Your task to perform on an android device: Check the weather Image 0: 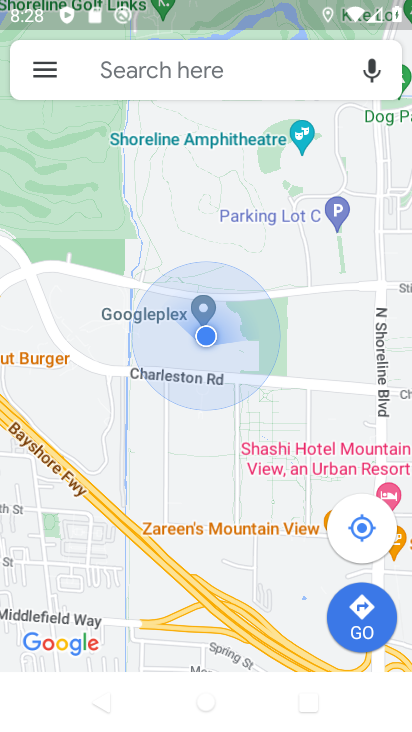
Step 0: press home button
Your task to perform on an android device: Check the weather Image 1: 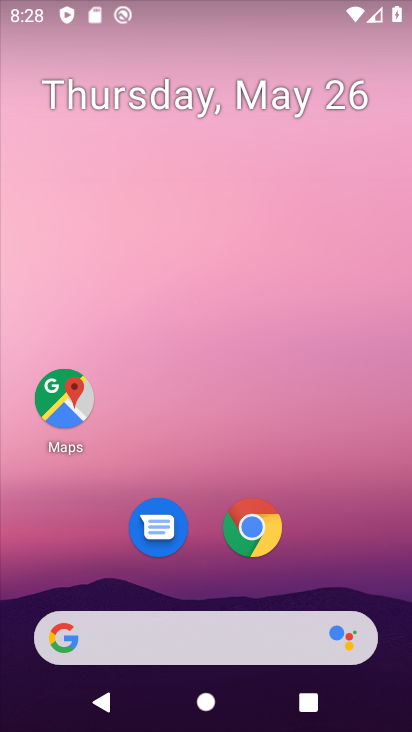
Step 1: drag from (313, 444) to (280, 105)
Your task to perform on an android device: Check the weather Image 2: 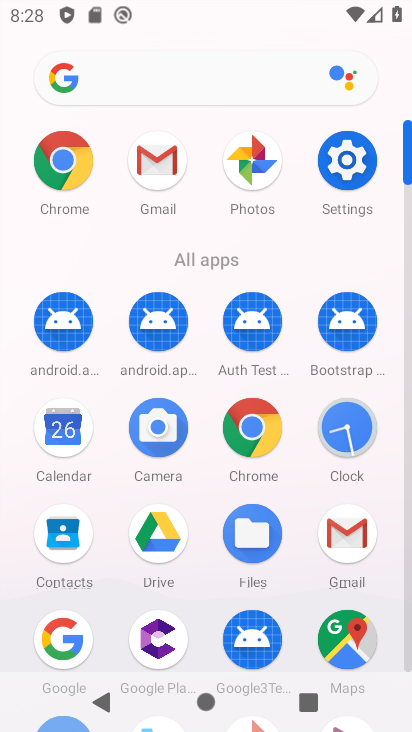
Step 2: click (62, 170)
Your task to perform on an android device: Check the weather Image 3: 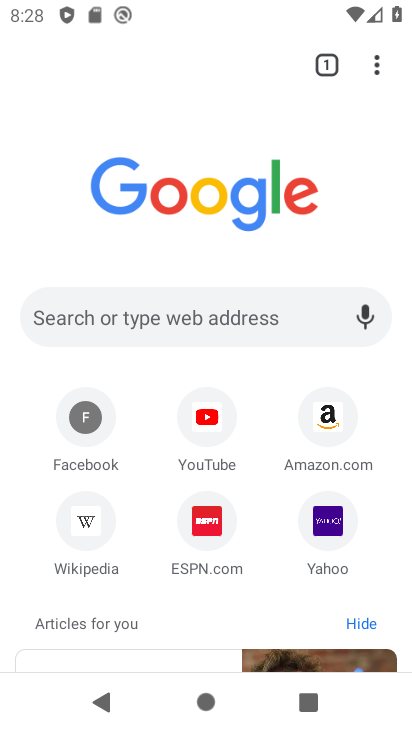
Step 3: click (239, 324)
Your task to perform on an android device: Check the weather Image 4: 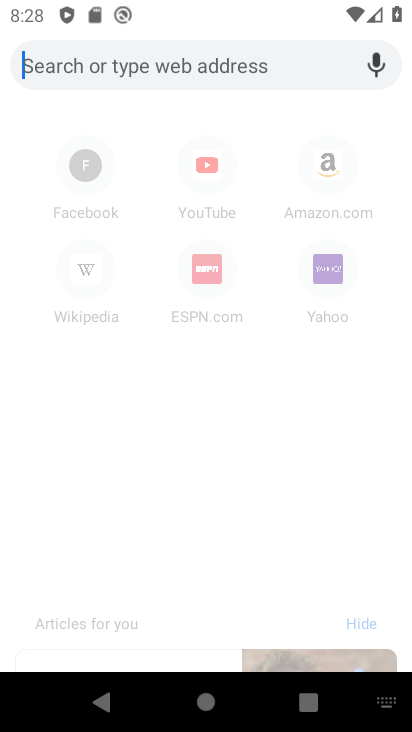
Step 4: type "weather"
Your task to perform on an android device: Check the weather Image 5: 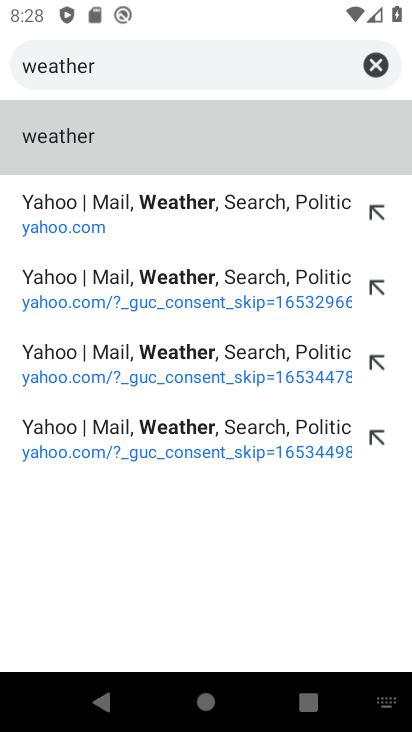
Step 5: click (36, 128)
Your task to perform on an android device: Check the weather Image 6: 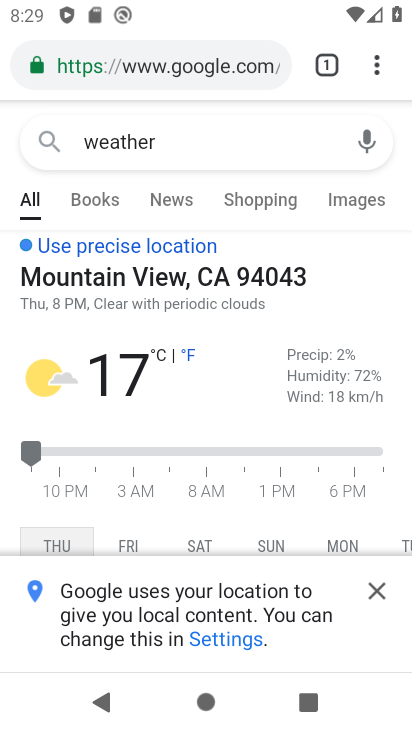
Step 6: task complete